Your task to perform on an android device: manage bookmarks in the chrome app Image 0: 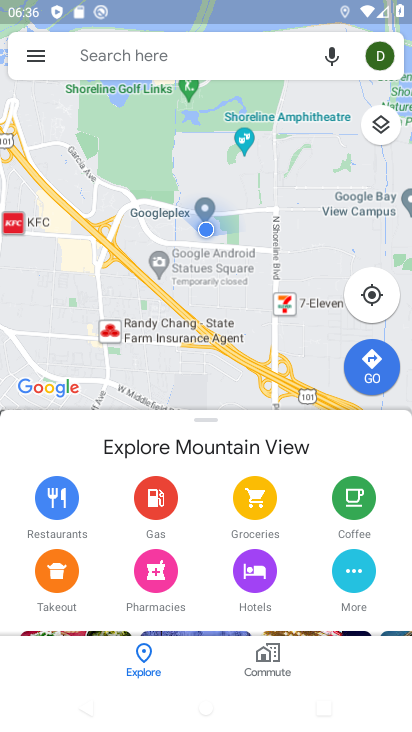
Step 0: press home button
Your task to perform on an android device: manage bookmarks in the chrome app Image 1: 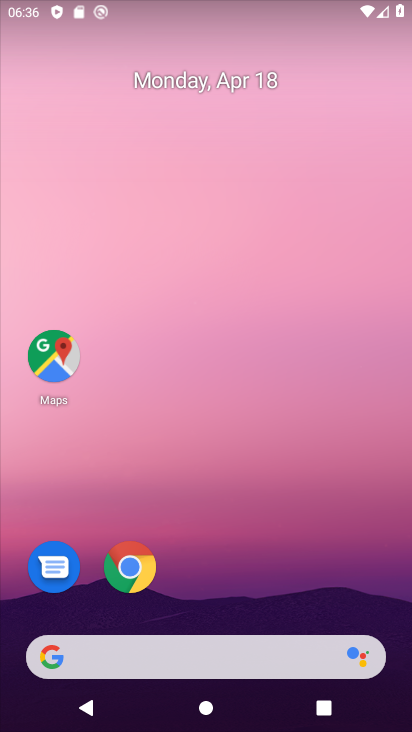
Step 1: drag from (230, 432) to (240, 6)
Your task to perform on an android device: manage bookmarks in the chrome app Image 2: 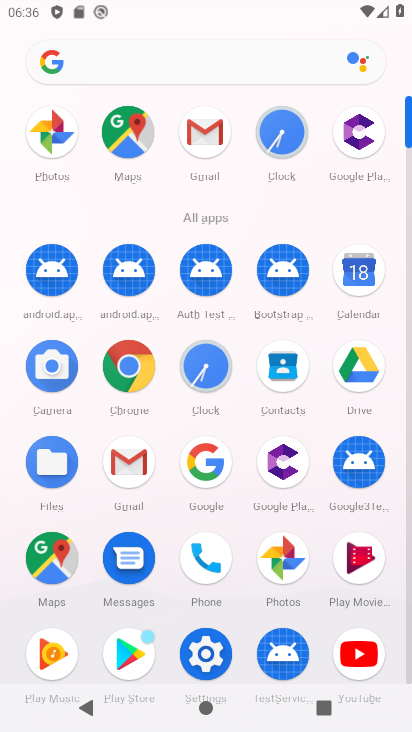
Step 2: click (116, 355)
Your task to perform on an android device: manage bookmarks in the chrome app Image 3: 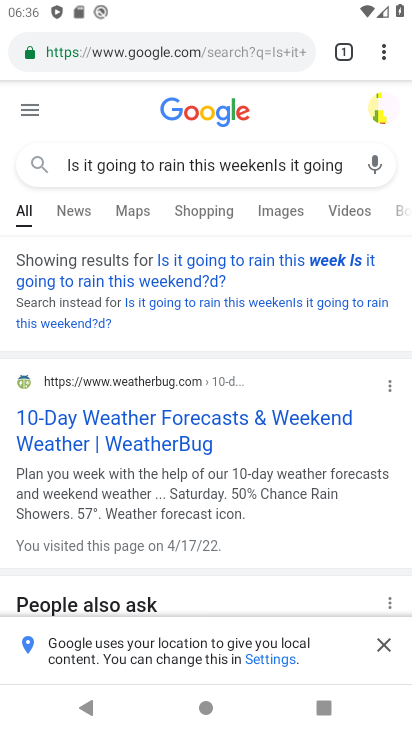
Step 3: click (382, 50)
Your task to perform on an android device: manage bookmarks in the chrome app Image 4: 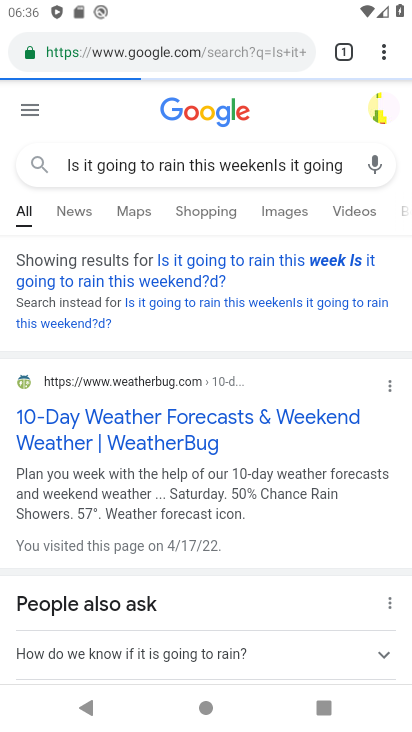
Step 4: task complete